Your task to perform on an android device: Go to location settings Image 0: 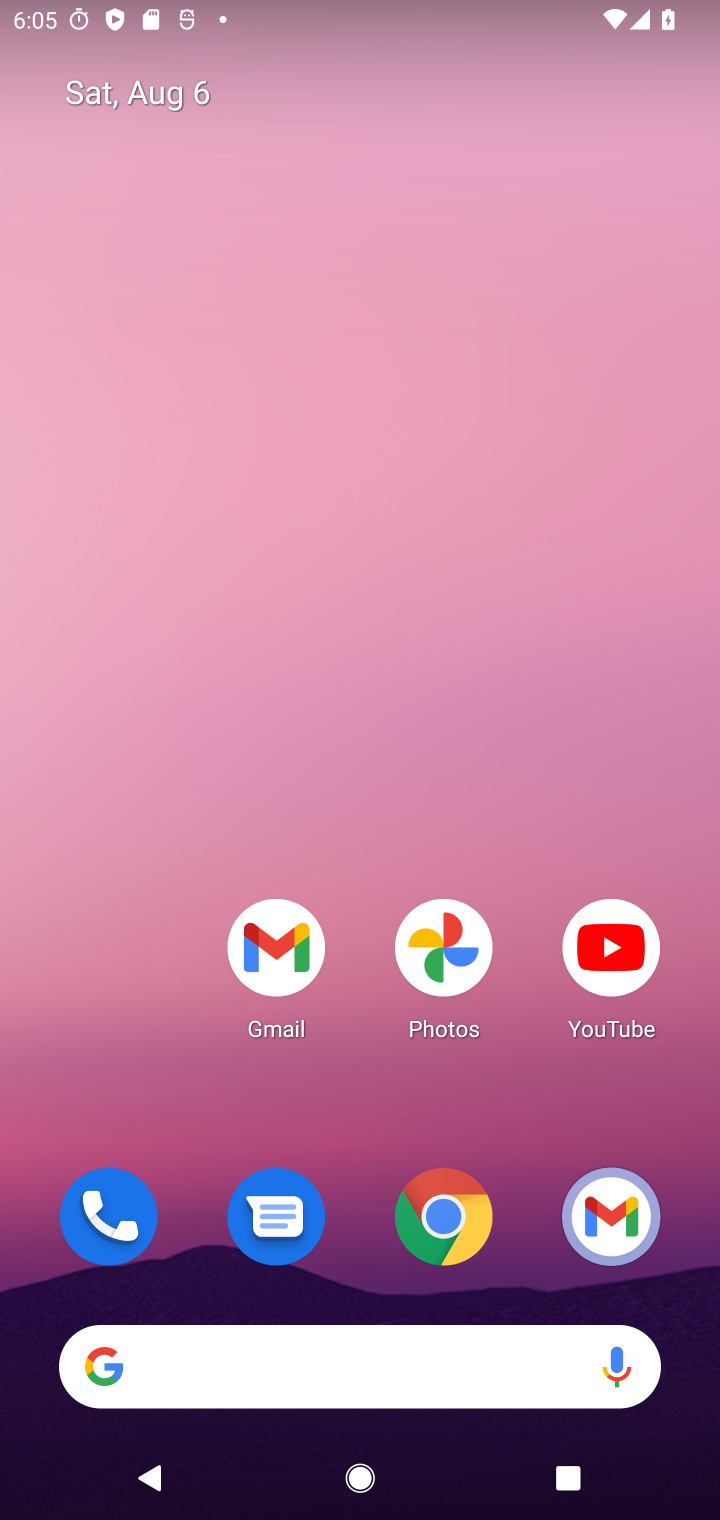
Step 0: drag from (369, 1012) to (389, 146)
Your task to perform on an android device: Go to location settings Image 1: 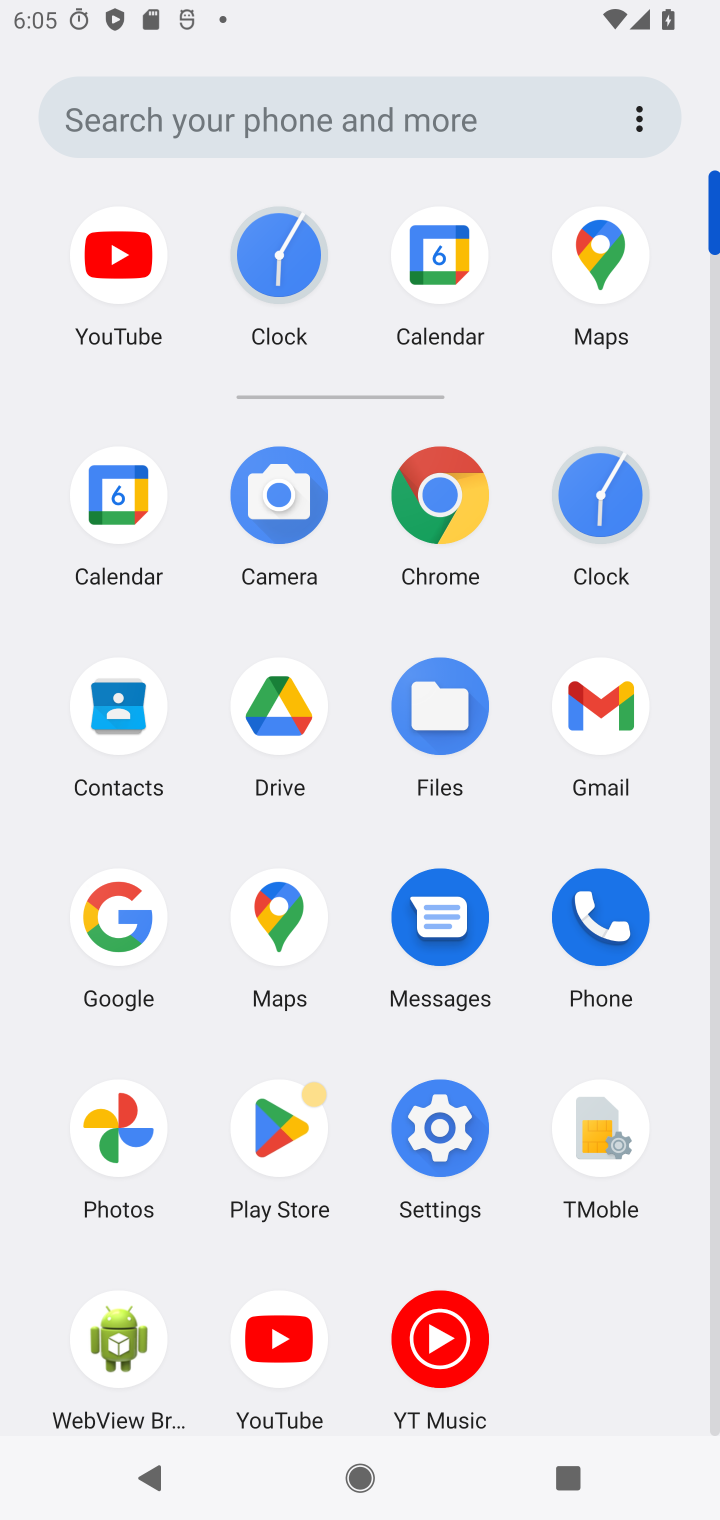
Step 1: click (446, 1144)
Your task to perform on an android device: Go to location settings Image 2: 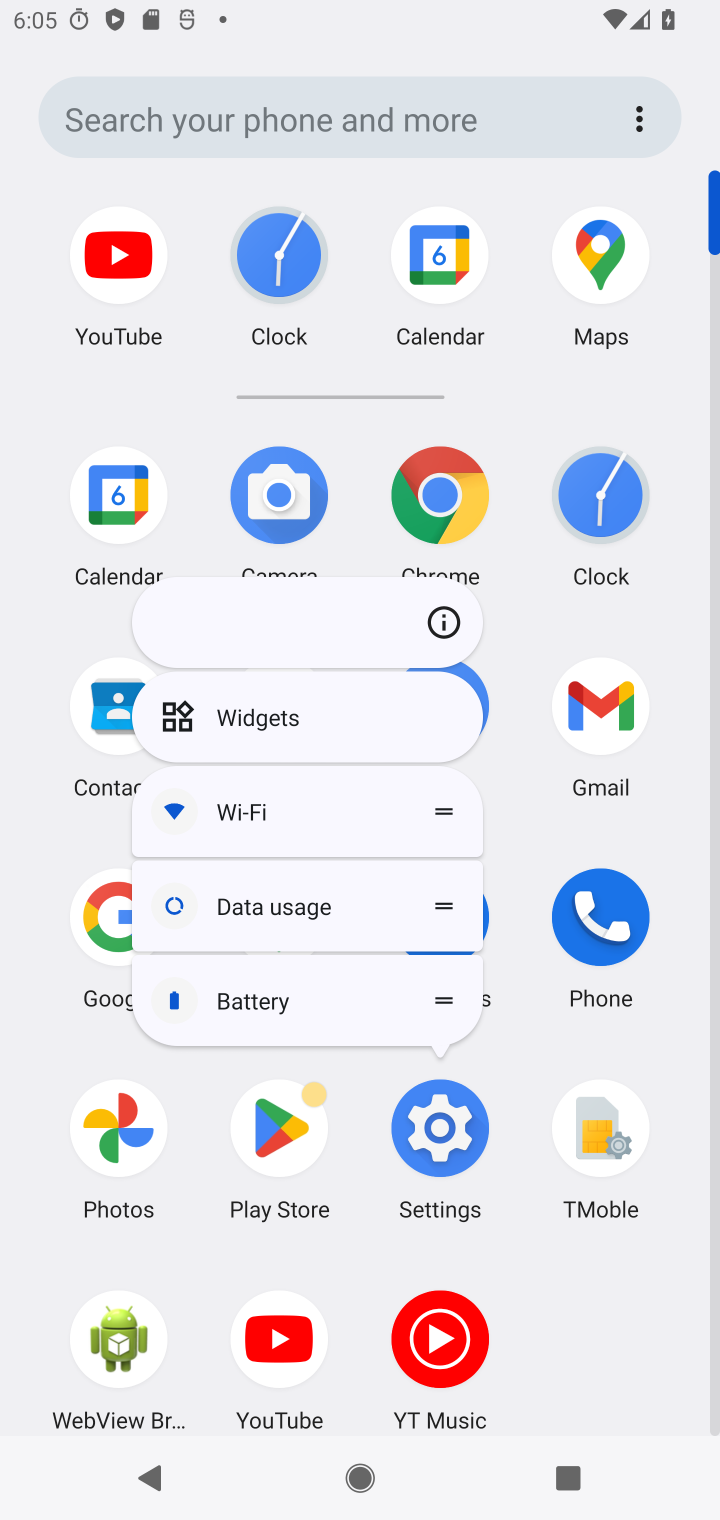
Step 2: click (433, 1107)
Your task to perform on an android device: Go to location settings Image 3: 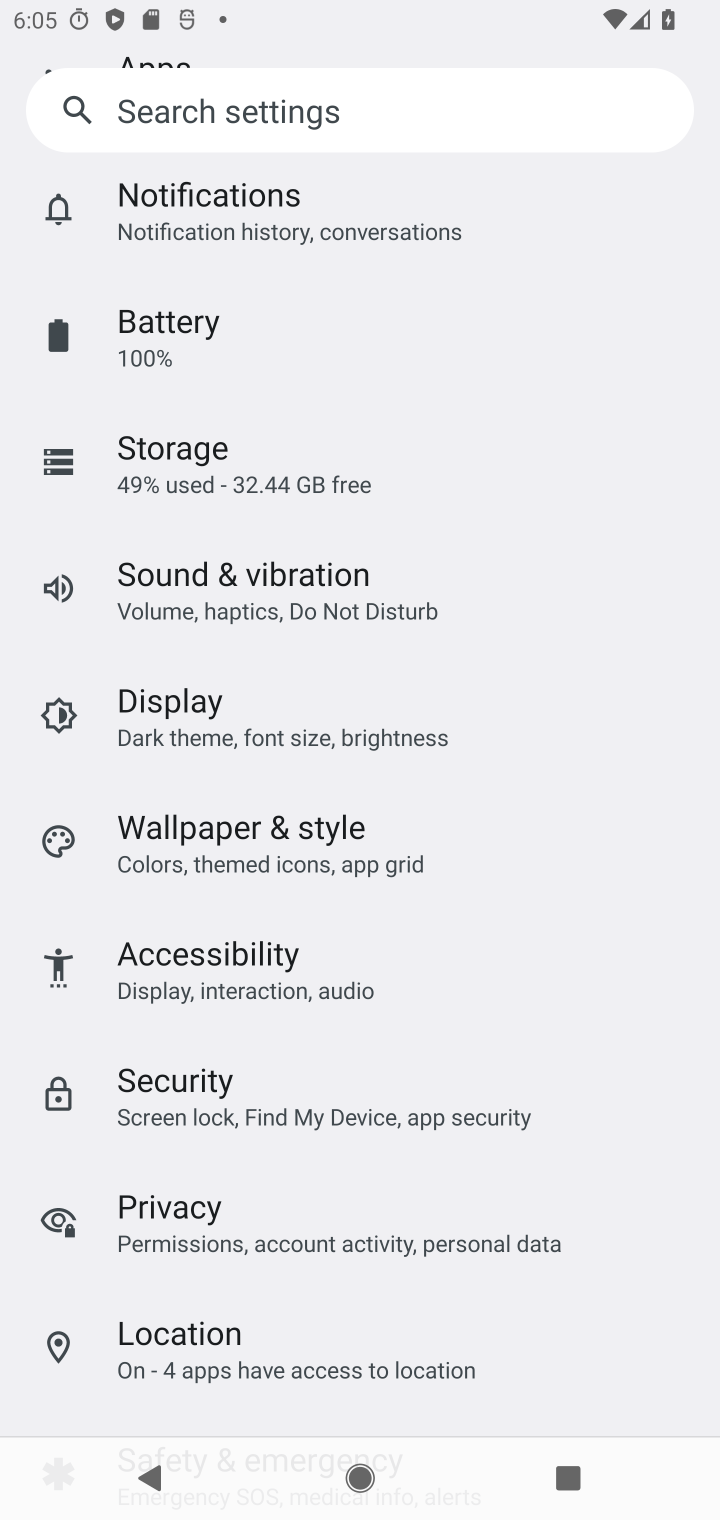
Step 3: click (243, 1360)
Your task to perform on an android device: Go to location settings Image 4: 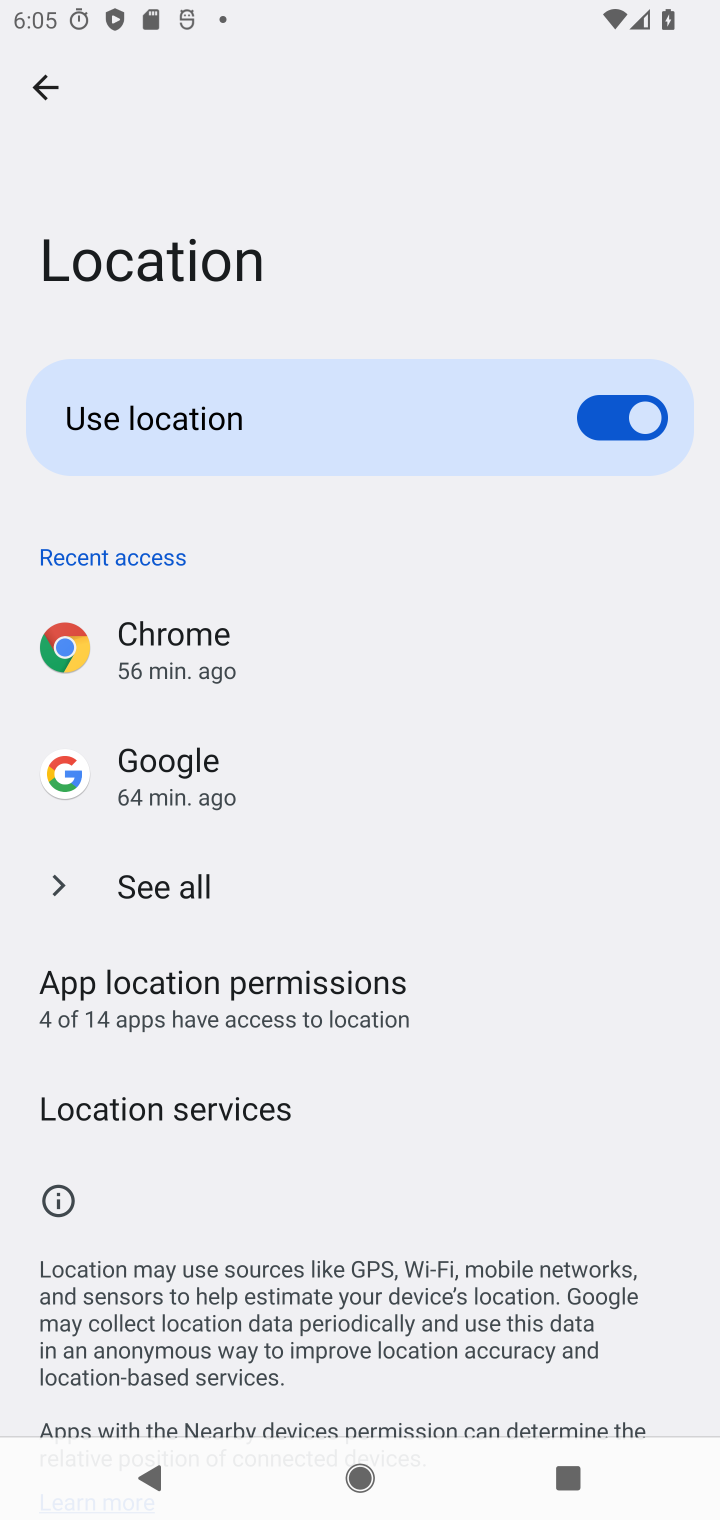
Step 4: task complete